Your task to perform on an android device: Turn on the flashlight Image 0: 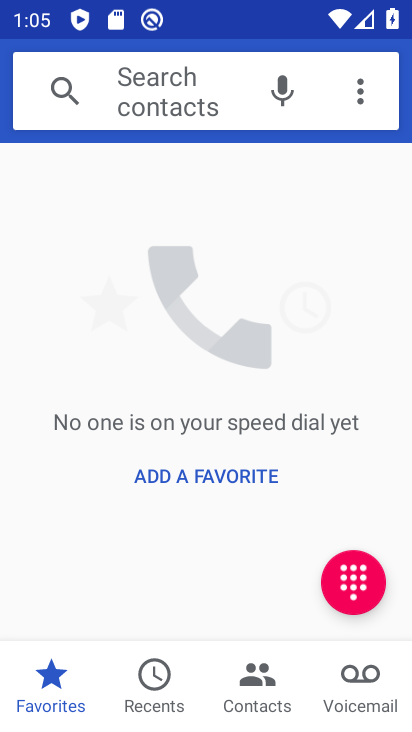
Step 0: press home button
Your task to perform on an android device: Turn on the flashlight Image 1: 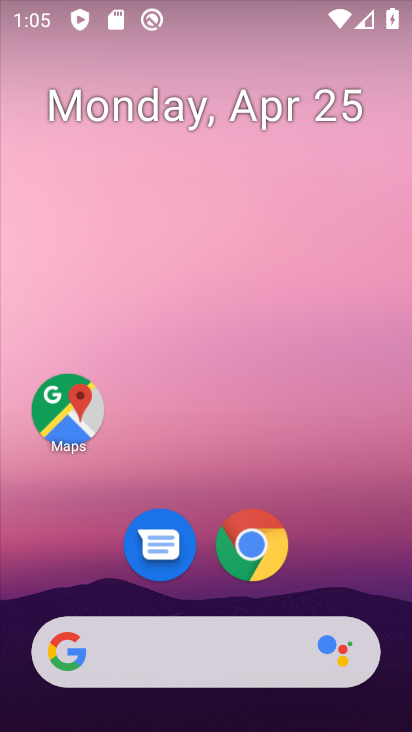
Step 1: drag from (310, 546) to (267, 143)
Your task to perform on an android device: Turn on the flashlight Image 2: 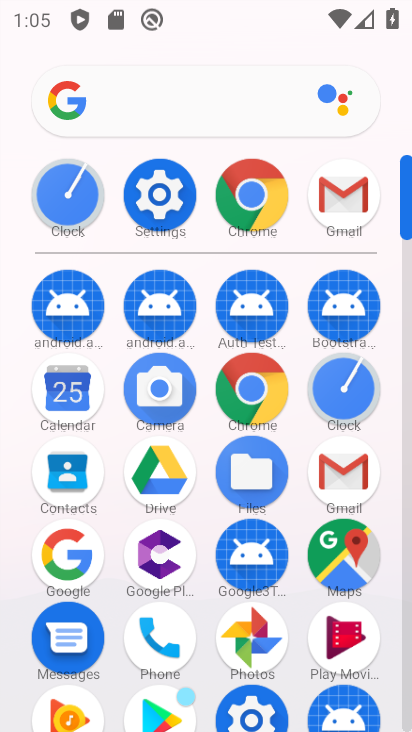
Step 2: click (173, 212)
Your task to perform on an android device: Turn on the flashlight Image 3: 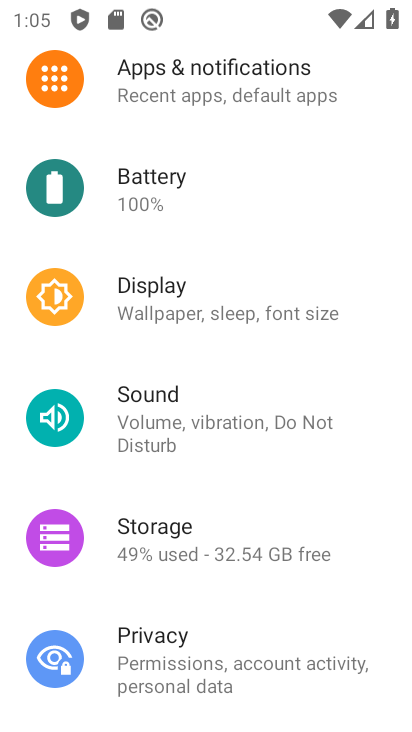
Step 3: drag from (227, 529) to (230, 208)
Your task to perform on an android device: Turn on the flashlight Image 4: 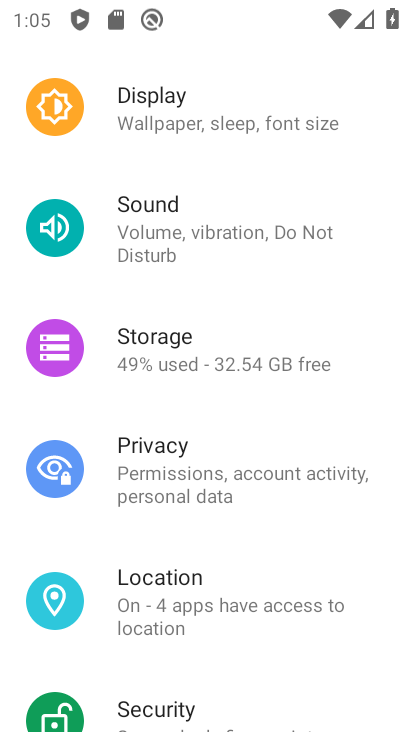
Step 4: drag from (220, 153) to (193, 524)
Your task to perform on an android device: Turn on the flashlight Image 5: 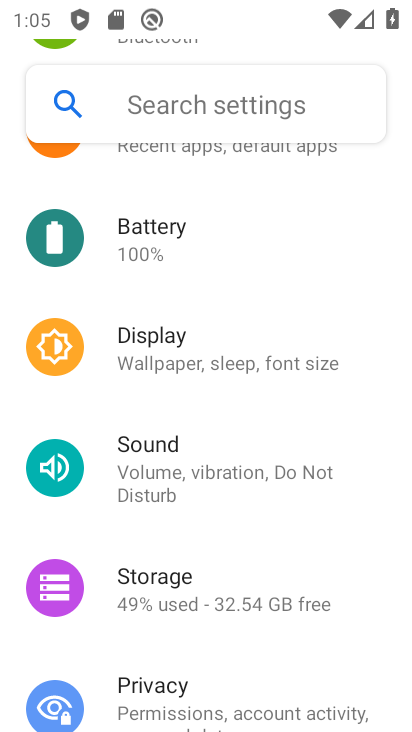
Step 5: drag from (230, 305) to (179, 564)
Your task to perform on an android device: Turn on the flashlight Image 6: 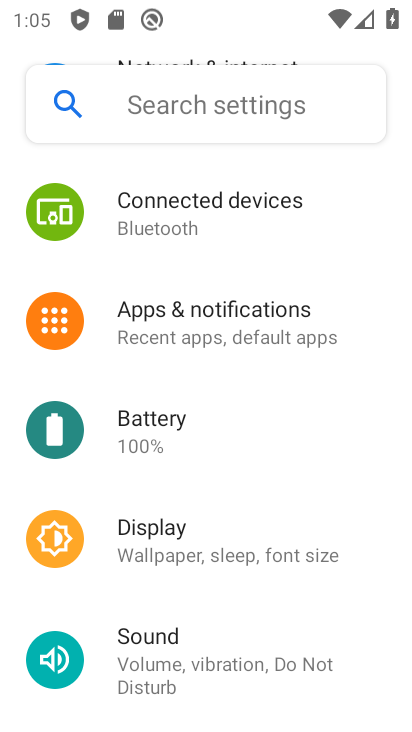
Step 6: click (190, 323)
Your task to perform on an android device: Turn on the flashlight Image 7: 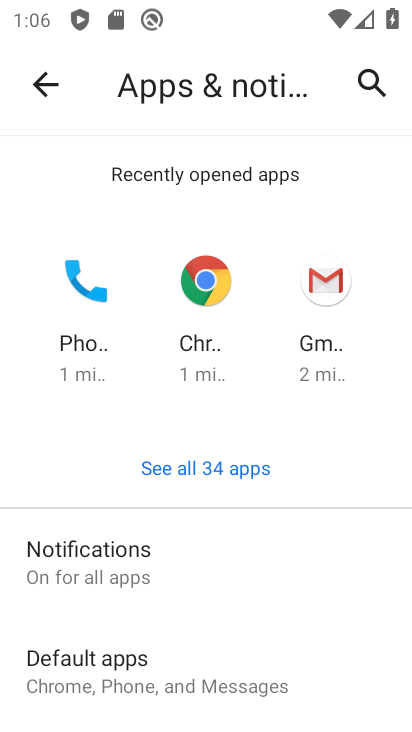
Step 7: task complete